Your task to perform on an android device: Is it going to rain tomorrow? Image 0: 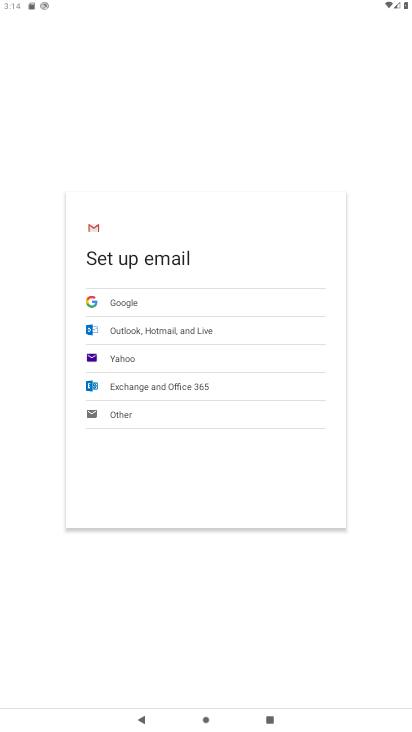
Step 0: press home button
Your task to perform on an android device: Is it going to rain tomorrow? Image 1: 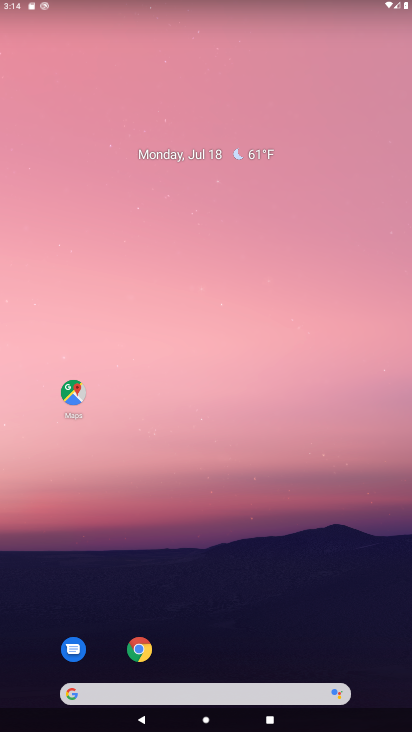
Step 1: click (186, 693)
Your task to perform on an android device: Is it going to rain tomorrow? Image 2: 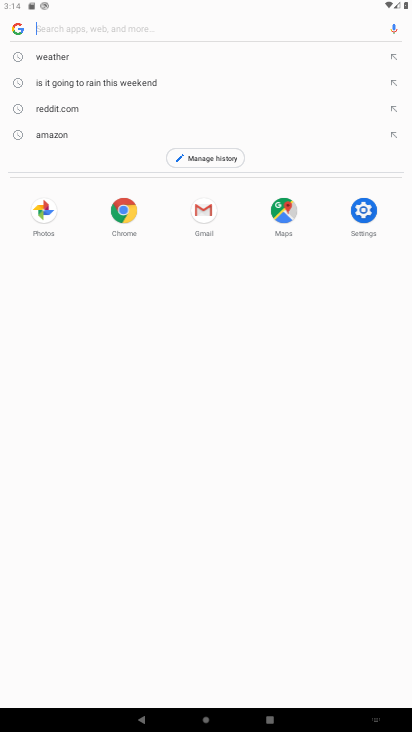
Step 2: type "is it going to rain tomorrow"
Your task to perform on an android device: Is it going to rain tomorrow? Image 3: 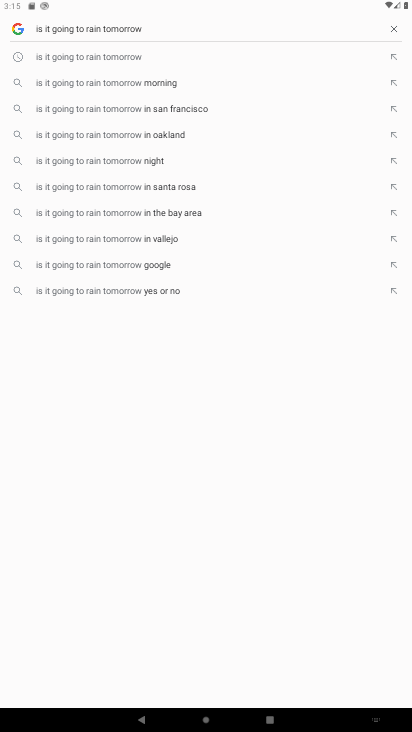
Step 3: click (89, 50)
Your task to perform on an android device: Is it going to rain tomorrow? Image 4: 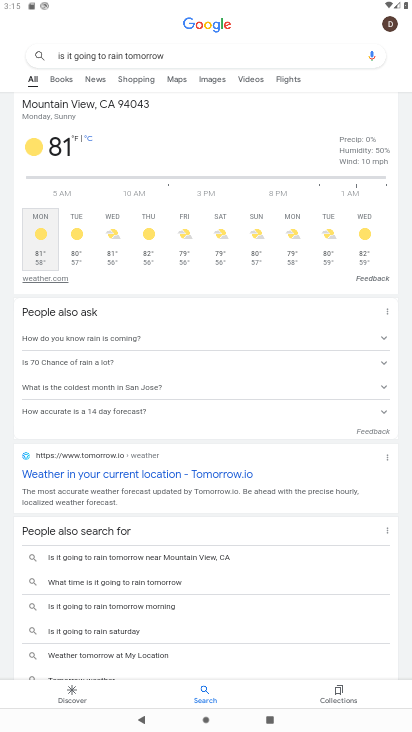
Step 4: task complete